Your task to perform on an android device: Open calendar and show me the third week of next month Image 0: 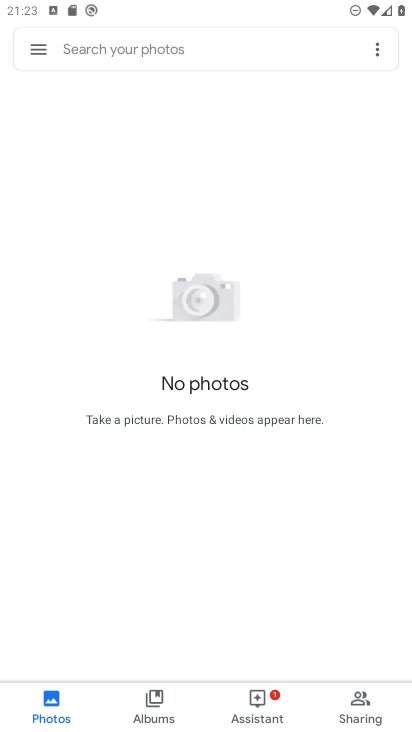
Step 0: press home button
Your task to perform on an android device: Open calendar and show me the third week of next month Image 1: 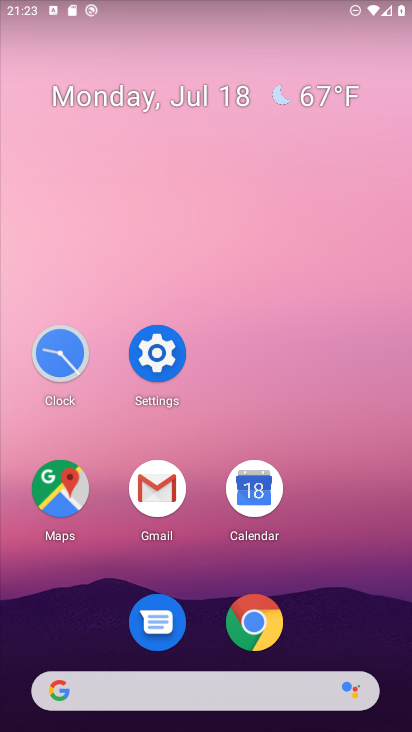
Step 1: drag from (387, 370) to (341, 27)
Your task to perform on an android device: Open calendar and show me the third week of next month Image 2: 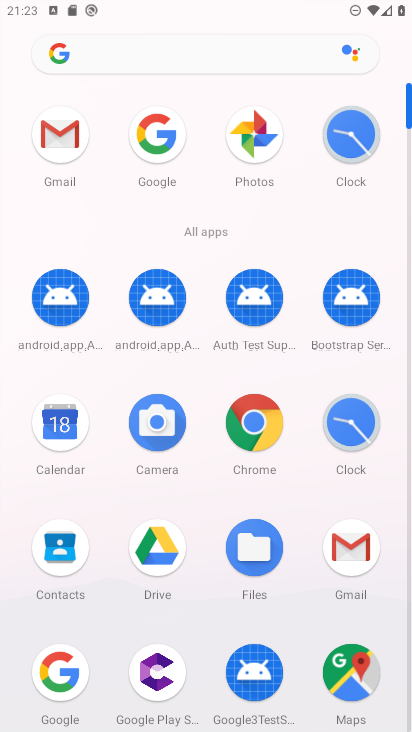
Step 2: click (62, 433)
Your task to perform on an android device: Open calendar and show me the third week of next month Image 3: 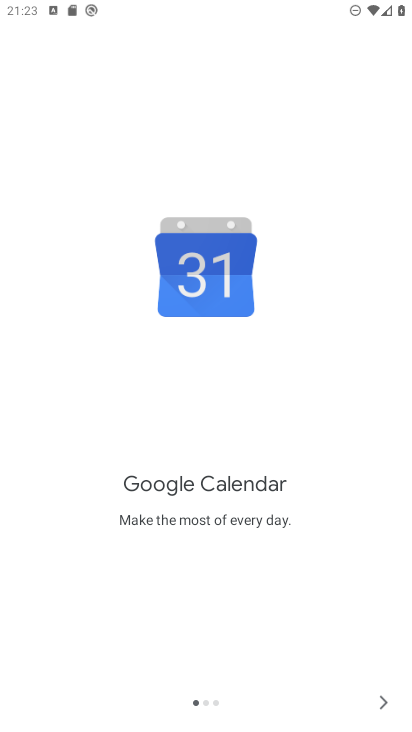
Step 3: click (383, 695)
Your task to perform on an android device: Open calendar and show me the third week of next month Image 4: 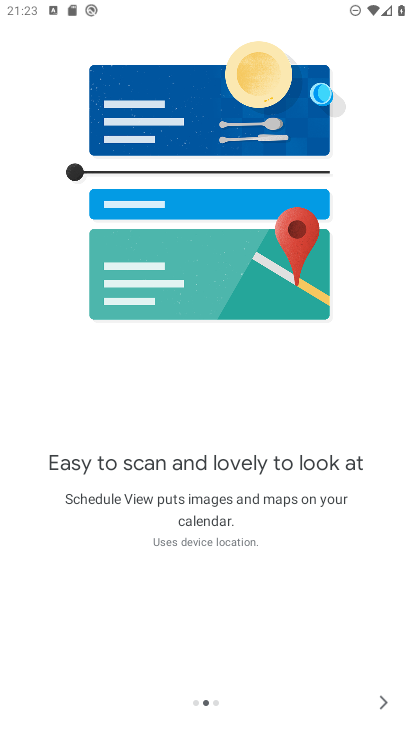
Step 4: click (383, 695)
Your task to perform on an android device: Open calendar and show me the third week of next month Image 5: 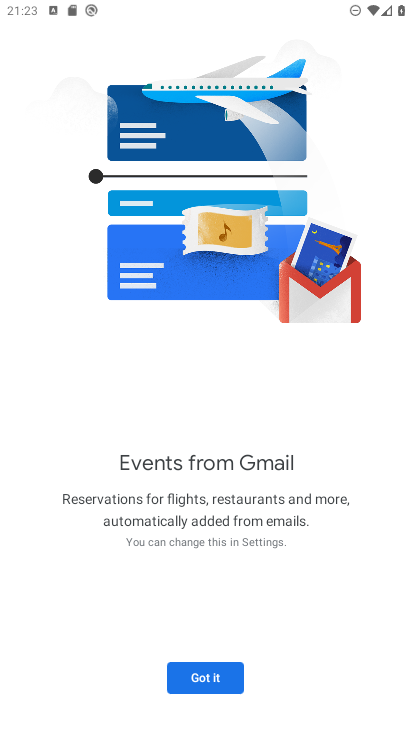
Step 5: click (383, 695)
Your task to perform on an android device: Open calendar and show me the third week of next month Image 6: 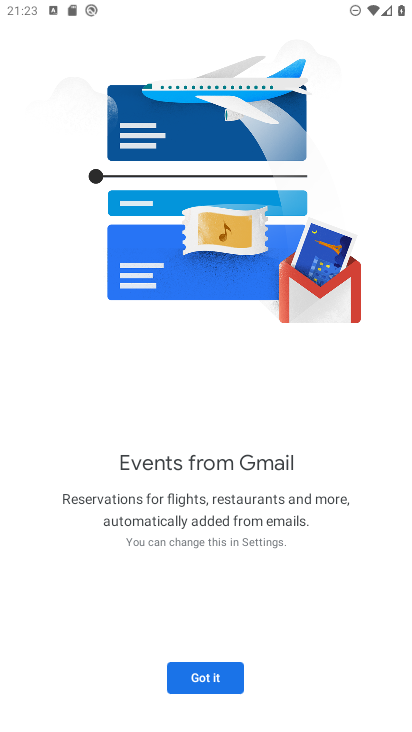
Step 6: click (221, 667)
Your task to perform on an android device: Open calendar and show me the third week of next month Image 7: 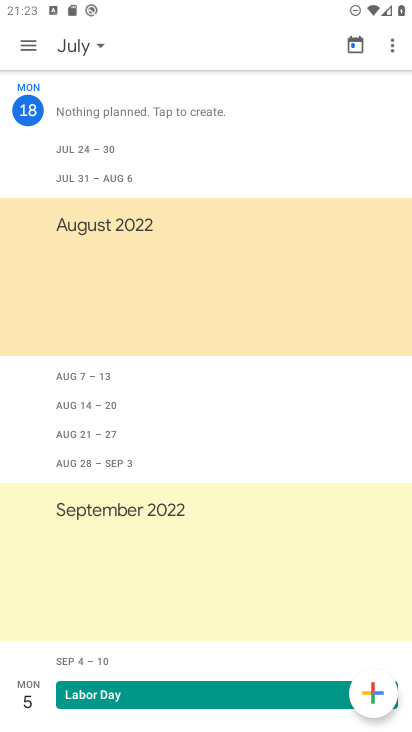
Step 7: click (101, 42)
Your task to perform on an android device: Open calendar and show me the third week of next month Image 8: 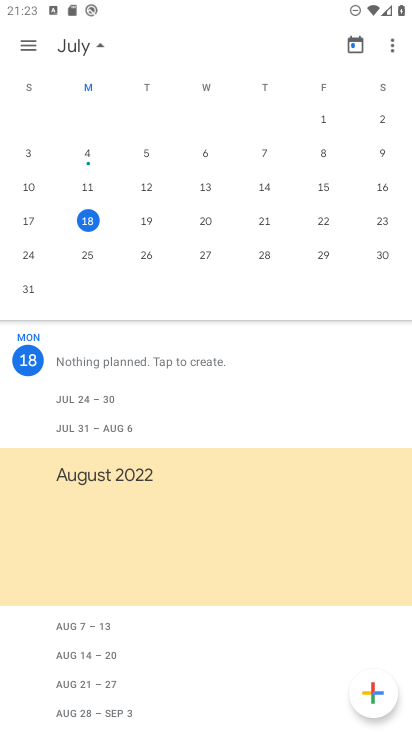
Step 8: drag from (397, 188) to (32, 162)
Your task to perform on an android device: Open calendar and show me the third week of next month Image 9: 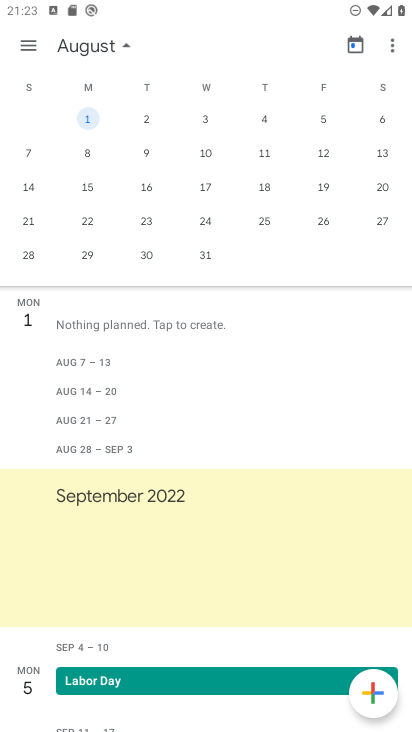
Step 9: click (265, 182)
Your task to perform on an android device: Open calendar and show me the third week of next month Image 10: 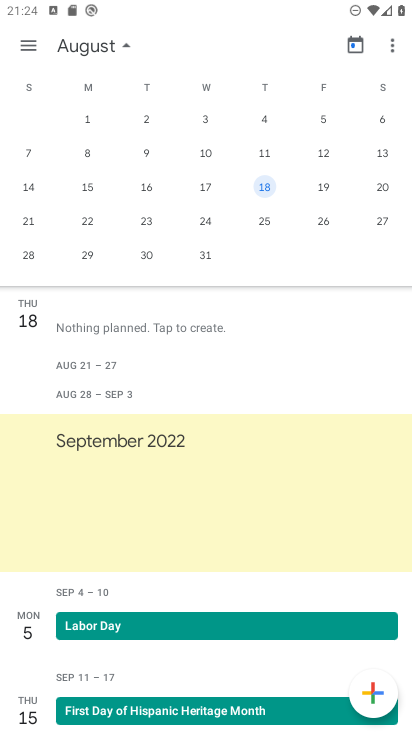
Step 10: task complete